Your task to perform on an android device: install app "Microsoft Outlook" Image 0: 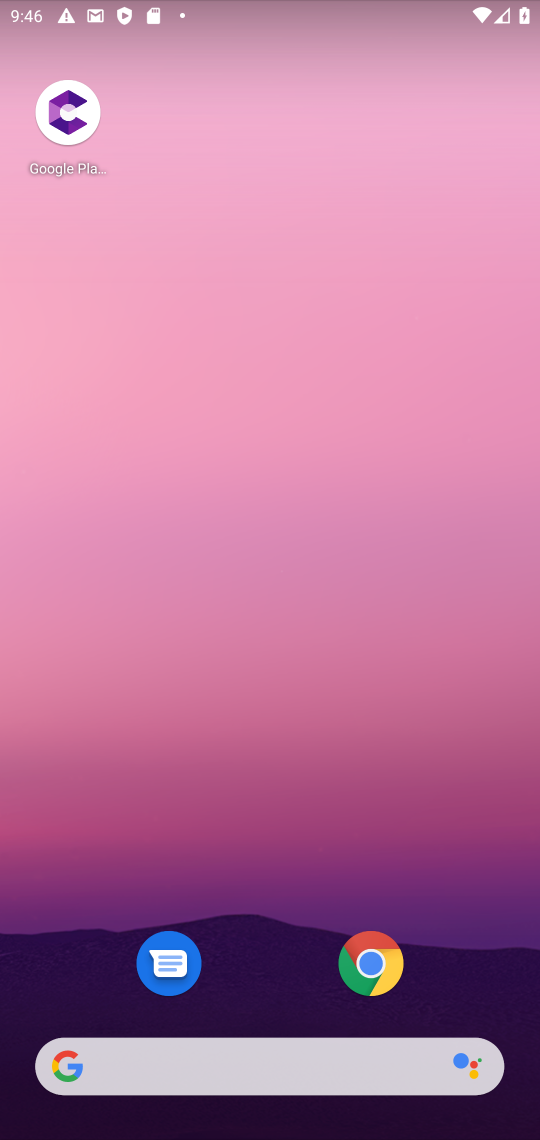
Step 0: drag from (269, 1046) to (256, 418)
Your task to perform on an android device: install app "Microsoft Outlook" Image 1: 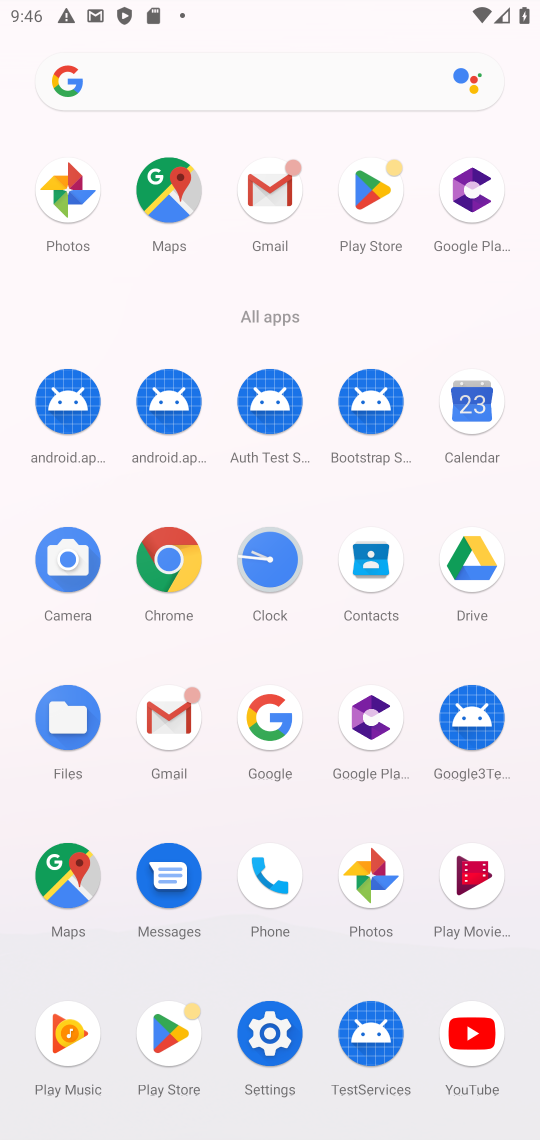
Step 1: click (173, 1037)
Your task to perform on an android device: install app "Microsoft Outlook" Image 2: 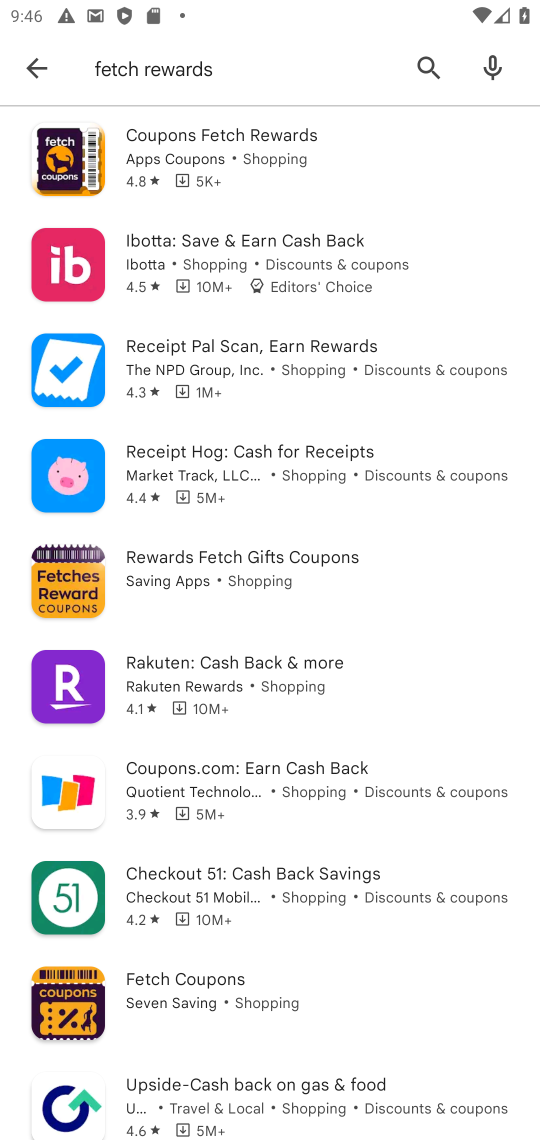
Step 2: click (437, 65)
Your task to perform on an android device: install app "Microsoft Outlook" Image 3: 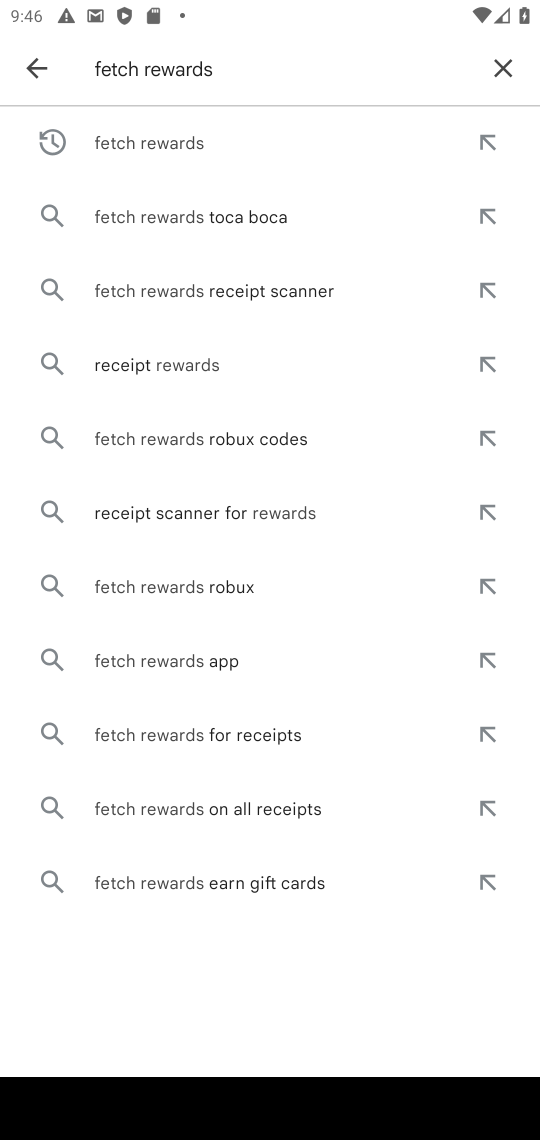
Step 3: click (495, 70)
Your task to perform on an android device: install app "Microsoft Outlook" Image 4: 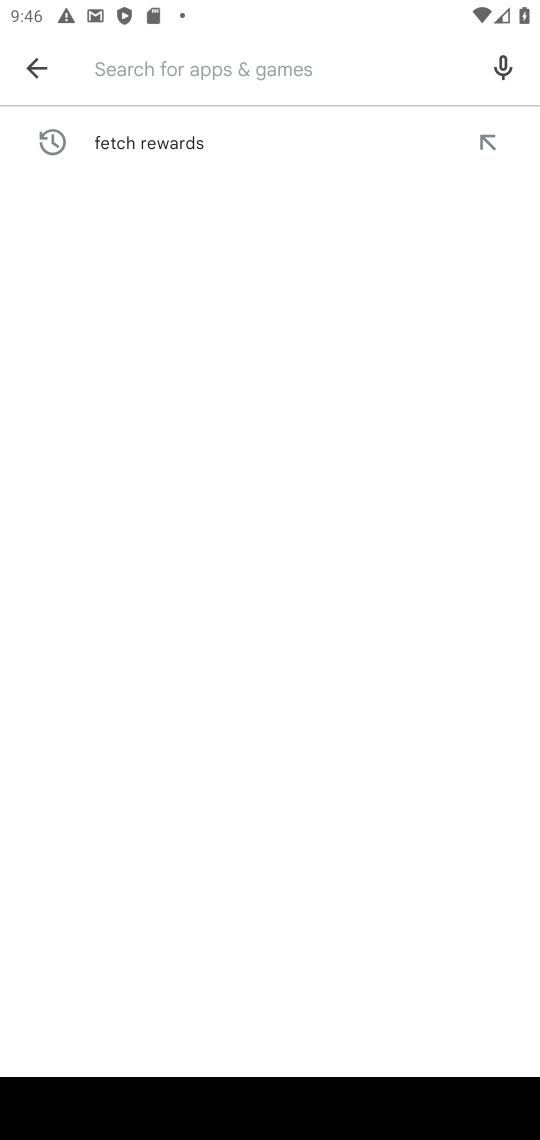
Step 4: type "Microsoft Outlook"
Your task to perform on an android device: install app "Microsoft Outlook" Image 5: 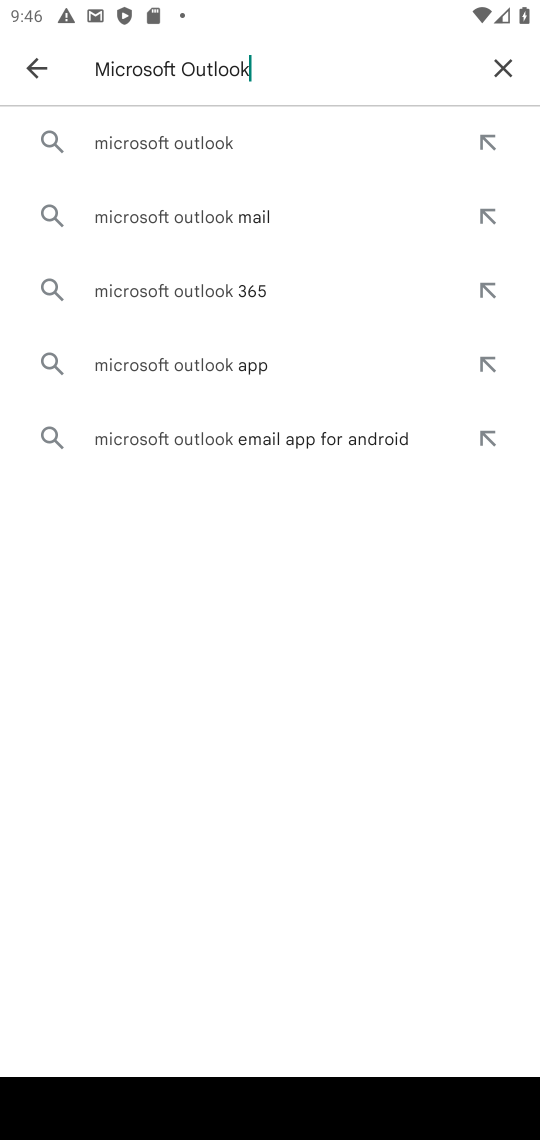
Step 5: click (168, 149)
Your task to perform on an android device: install app "Microsoft Outlook" Image 6: 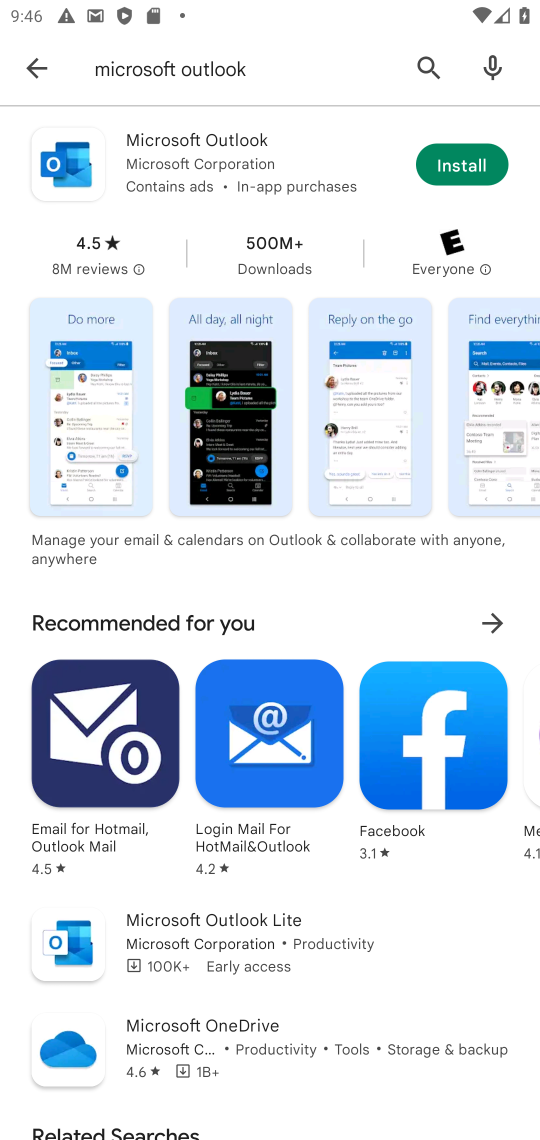
Step 6: click (444, 163)
Your task to perform on an android device: install app "Microsoft Outlook" Image 7: 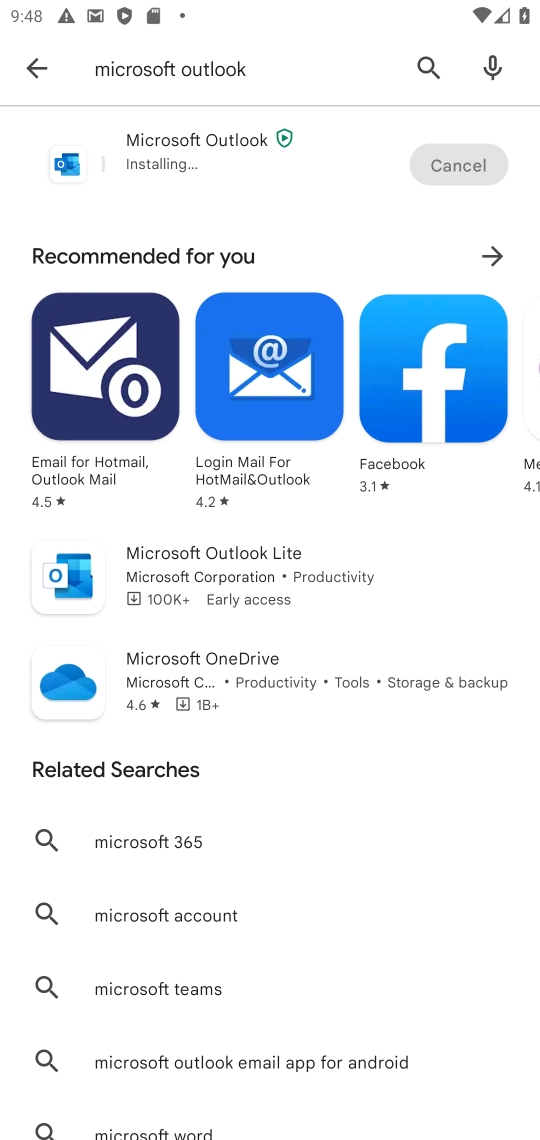
Step 7: task complete